Your task to perform on an android device: Open privacy settings Image 0: 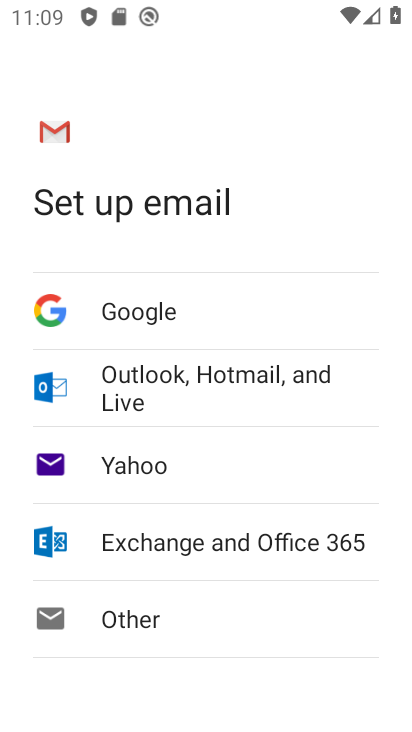
Step 0: press home button
Your task to perform on an android device: Open privacy settings Image 1: 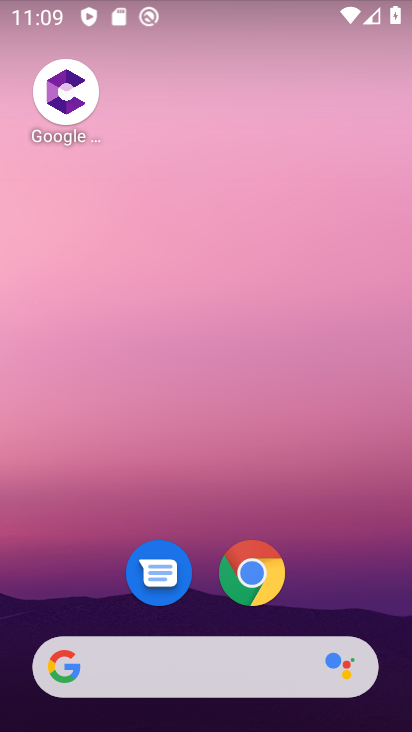
Step 1: click (241, 591)
Your task to perform on an android device: Open privacy settings Image 2: 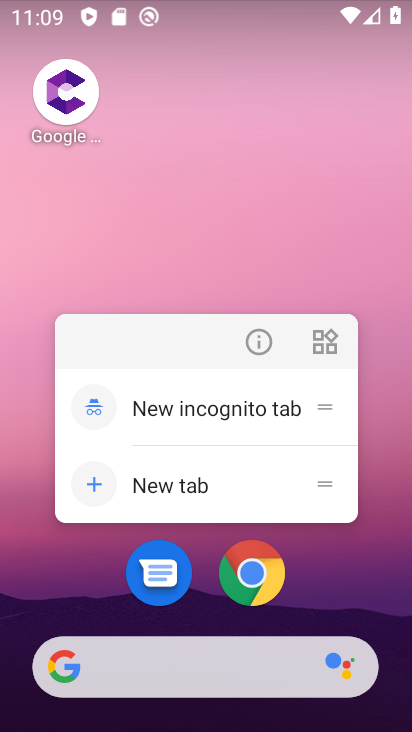
Step 2: click (246, 543)
Your task to perform on an android device: Open privacy settings Image 3: 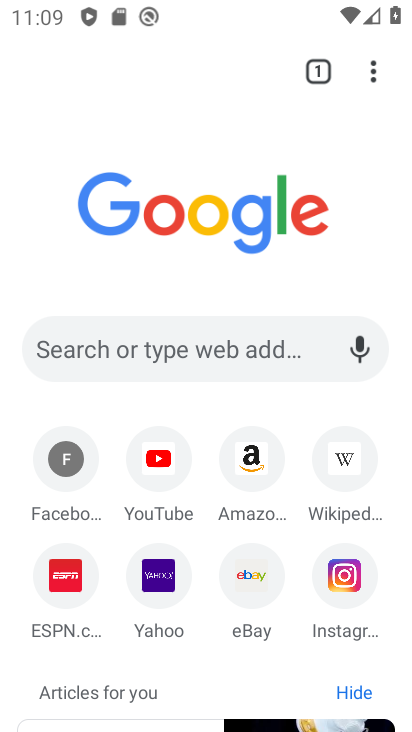
Step 3: click (388, 81)
Your task to perform on an android device: Open privacy settings Image 4: 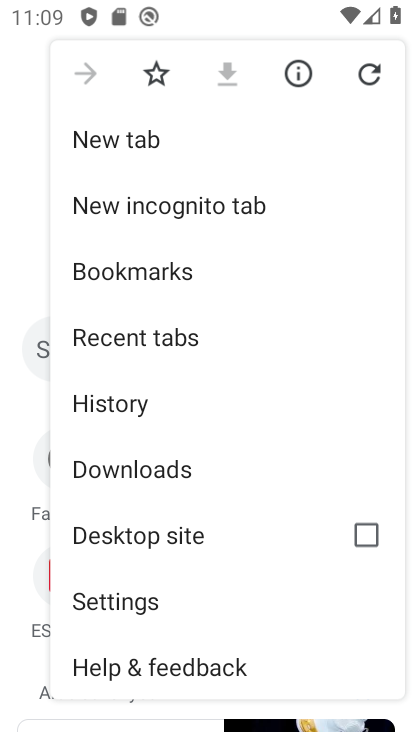
Step 4: click (183, 603)
Your task to perform on an android device: Open privacy settings Image 5: 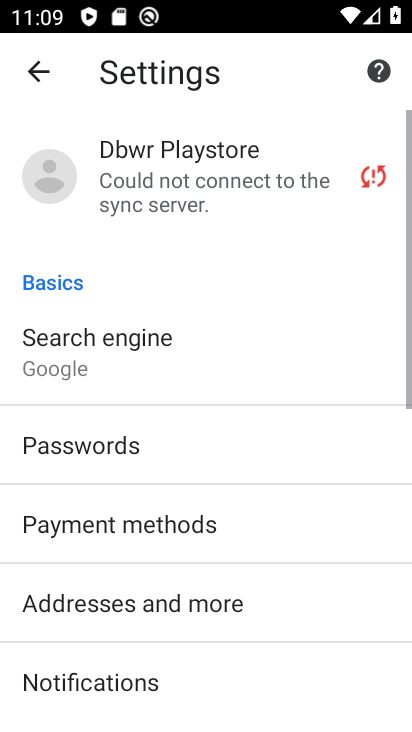
Step 5: drag from (202, 626) to (293, 246)
Your task to perform on an android device: Open privacy settings Image 6: 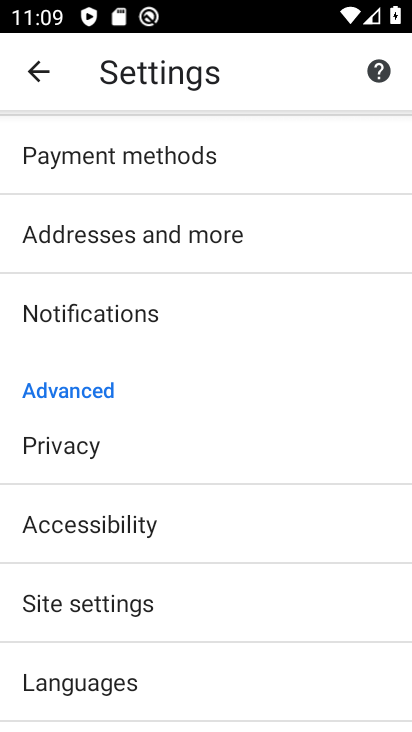
Step 6: click (194, 457)
Your task to perform on an android device: Open privacy settings Image 7: 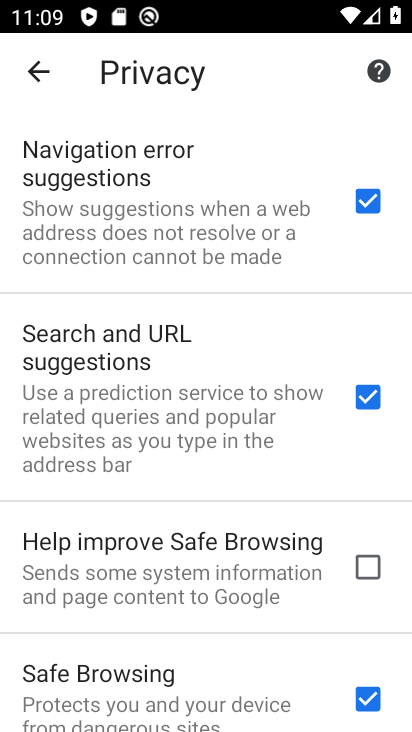
Step 7: task complete